Your task to perform on an android device: Go to location settings Image 0: 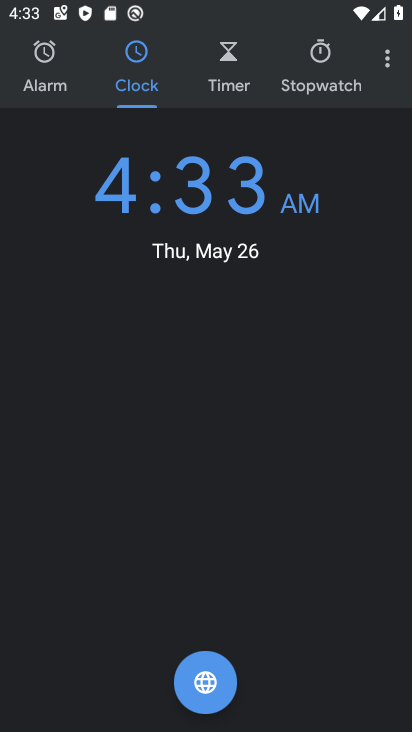
Step 0: press home button
Your task to perform on an android device: Go to location settings Image 1: 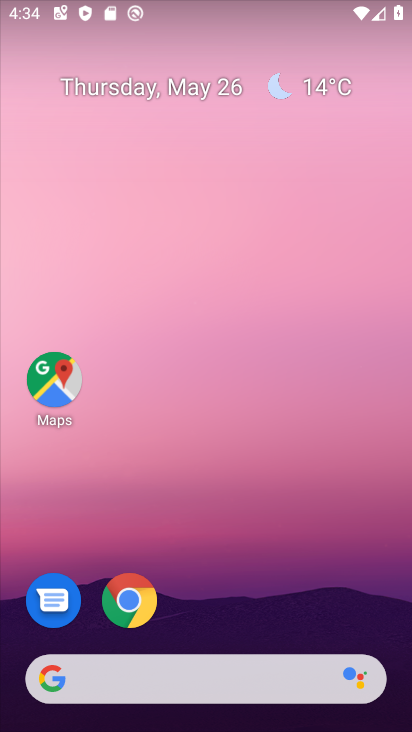
Step 1: drag from (236, 584) to (337, 119)
Your task to perform on an android device: Go to location settings Image 2: 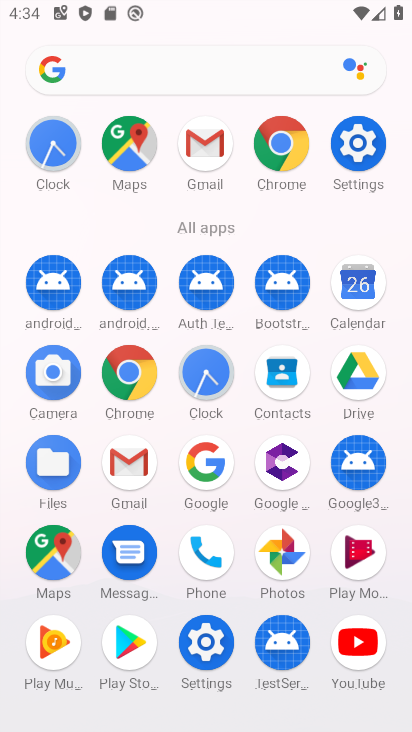
Step 2: click (382, 135)
Your task to perform on an android device: Go to location settings Image 3: 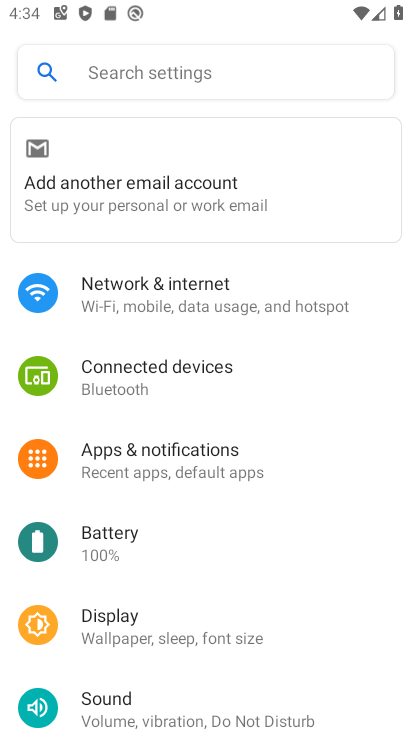
Step 3: drag from (104, 667) to (208, 269)
Your task to perform on an android device: Go to location settings Image 4: 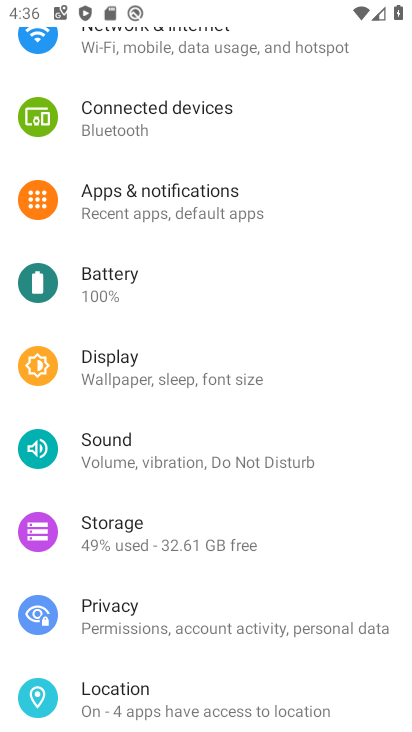
Step 4: click (101, 700)
Your task to perform on an android device: Go to location settings Image 5: 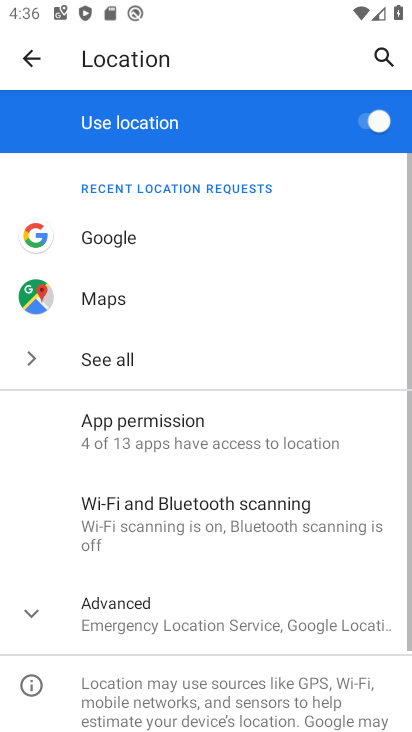
Step 5: task complete